Your task to perform on an android device: Go to Maps Image 0: 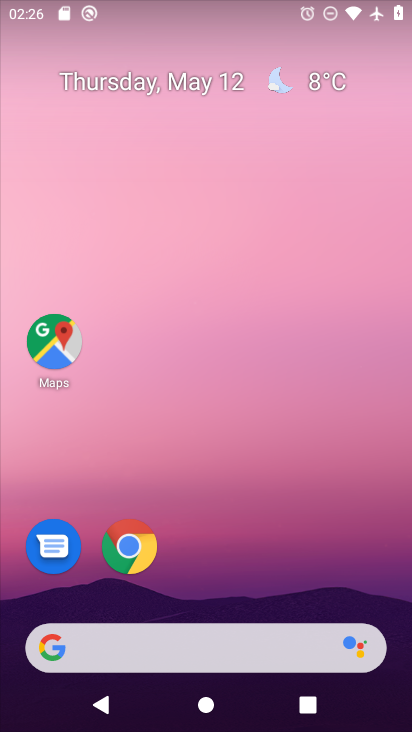
Step 0: click (57, 357)
Your task to perform on an android device: Go to Maps Image 1: 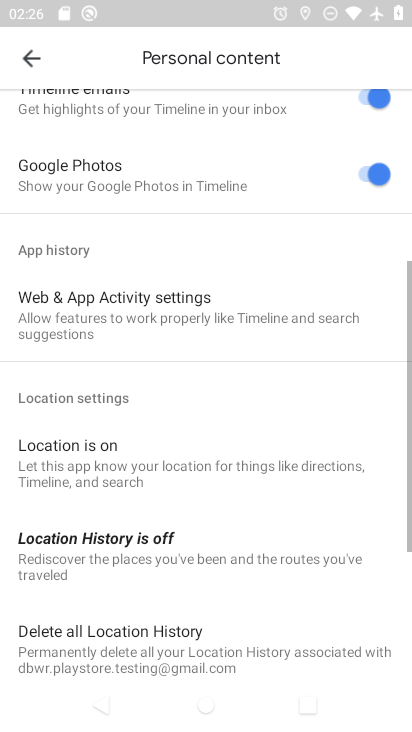
Step 1: click (35, 63)
Your task to perform on an android device: Go to Maps Image 2: 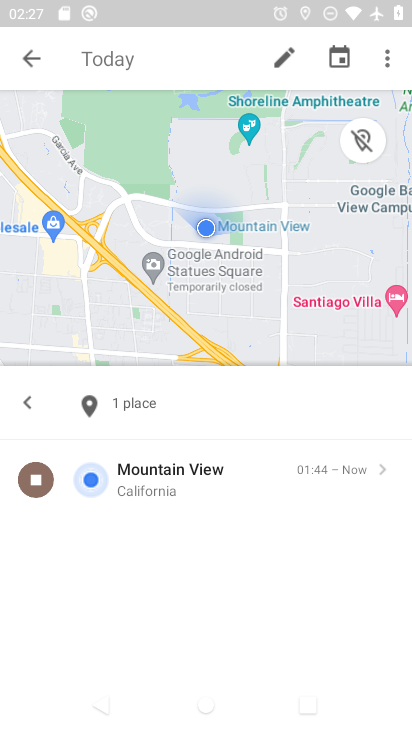
Step 2: task complete